Your task to perform on an android device: Go to internet settings Image 0: 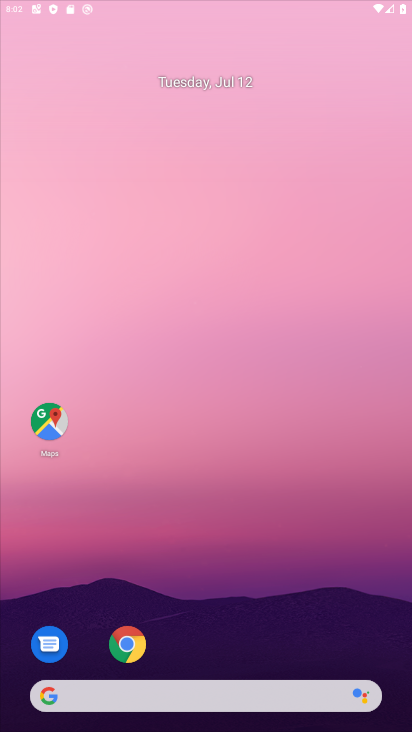
Step 0: click (225, 212)
Your task to perform on an android device: Go to internet settings Image 1: 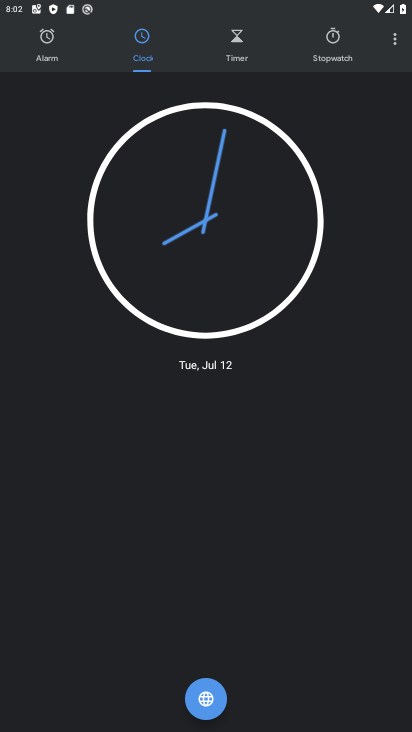
Step 1: drag from (195, 681) to (224, 362)
Your task to perform on an android device: Go to internet settings Image 2: 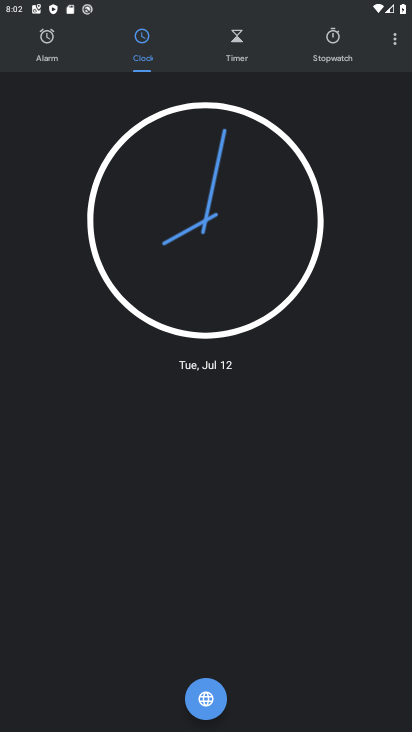
Step 2: press home button
Your task to perform on an android device: Go to internet settings Image 3: 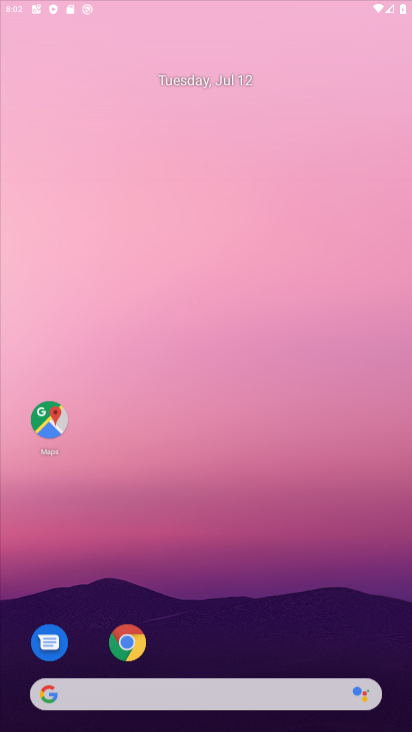
Step 3: drag from (145, 624) to (246, 14)
Your task to perform on an android device: Go to internet settings Image 4: 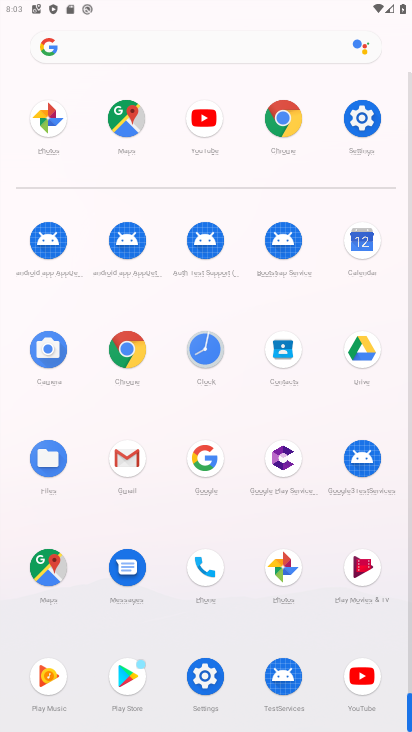
Step 4: click (205, 675)
Your task to perform on an android device: Go to internet settings Image 5: 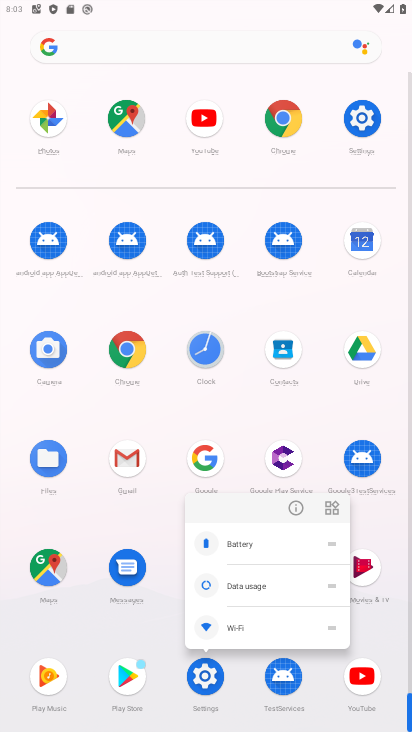
Step 5: click (290, 513)
Your task to perform on an android device: Go to internet settings Image 6: 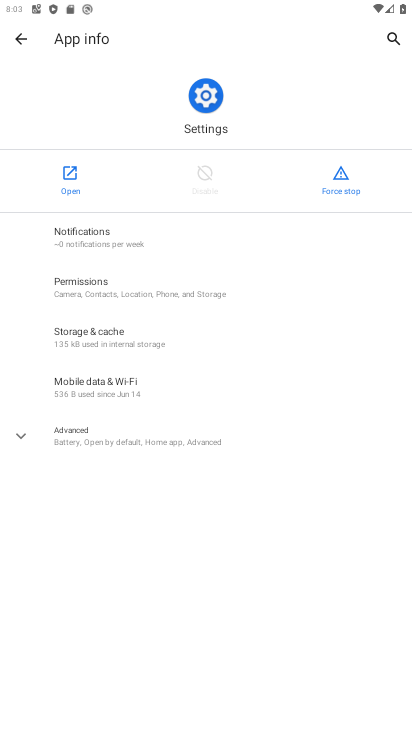
Step 6: click (72, 182)
Your task to perform on an android device: Go to internet settings Image 7: 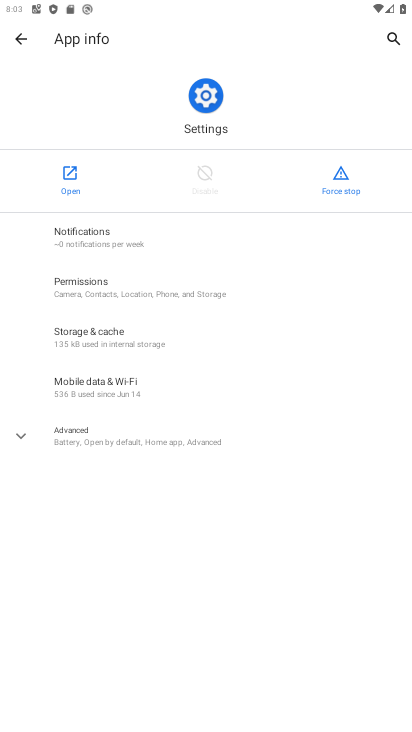
Step 7: click (72, 182)
Your task to perform on an android device: Go to internet settings Image 8: 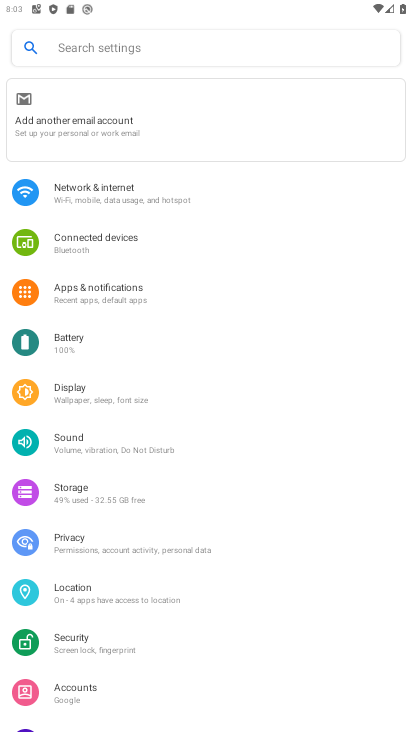
Step 8: drag from (102, 596) to (154, 210)
Your task to perform on an android device: Go to internet settings Image 9: 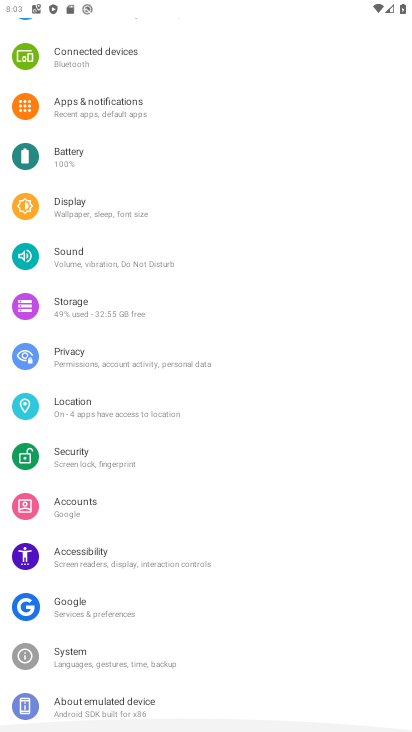
Step 9: drag from (130, 182) to (235, 731)
Your task to perform on an android device: Go to internet settings Image 10: 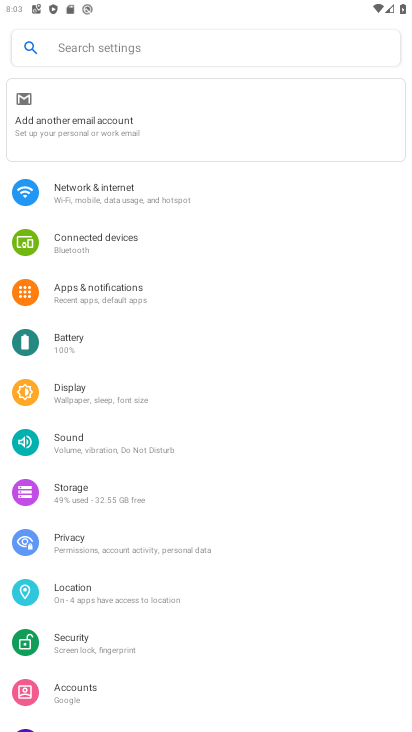
Step 10: click (148, 182)
Your task to perform on an android device: Go to internet settings Image 11: 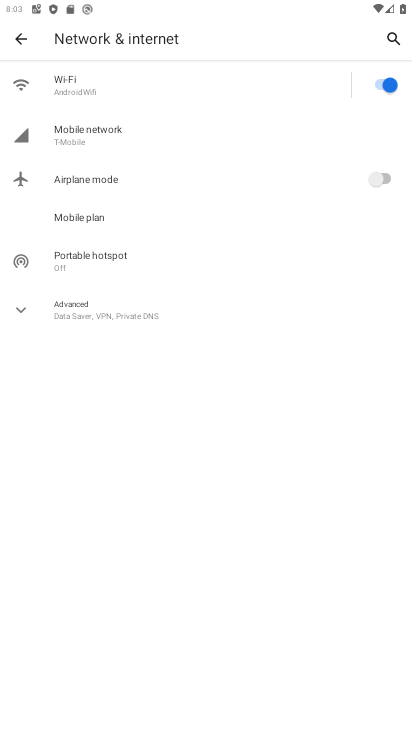
Step 11: task complete